Your task to perform on an android device: Play the last video I watched on Youtube Image 0: 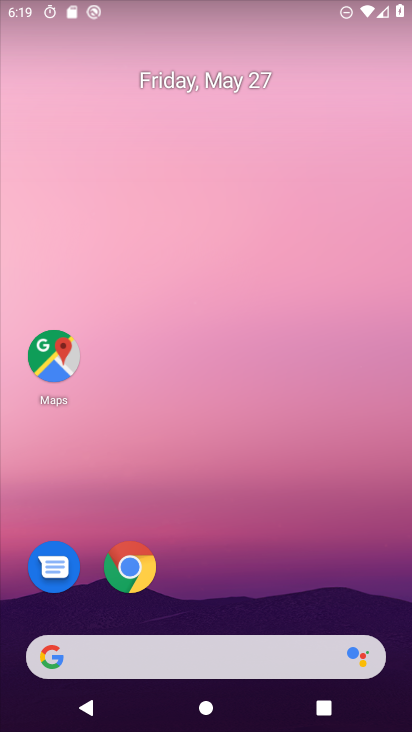
Step 0: drag from (180, 635) to (210, 34)
Your task to perform on an android device: Play the last video I watched on Youtube Image 1: 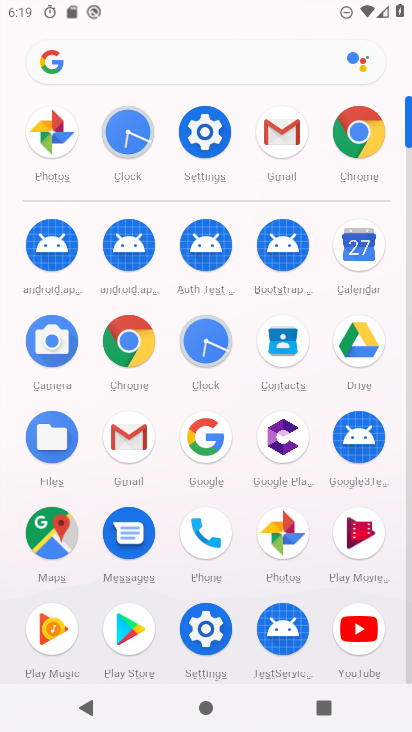
Step 1: click (349, 639)
Your task to perform on an android device: Play the last video I watched on Youtube Image 2: 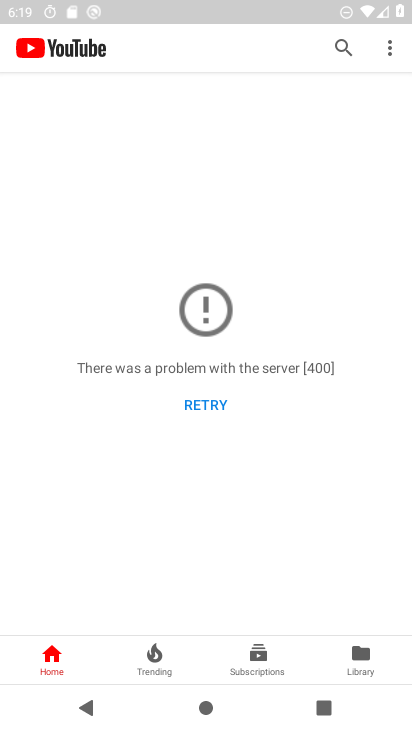
Step 2: click (359, 669)
Your task to perform on an android device: Play the last video I watched on Youtube Image 3: 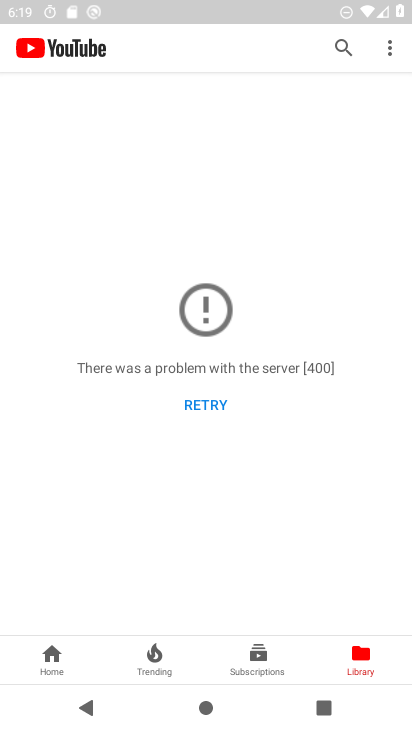
Step 3: task complete